Your task to perform on an android device: Open maps Image 0: 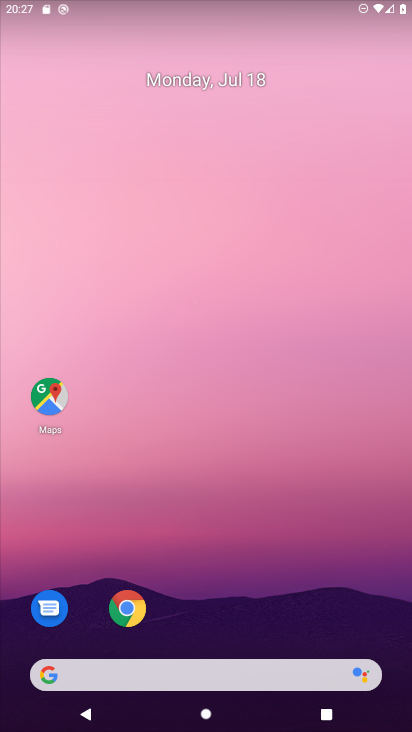
Step 0: click (49, 396)
Your task to perform on an android device: Open maps Image 1: 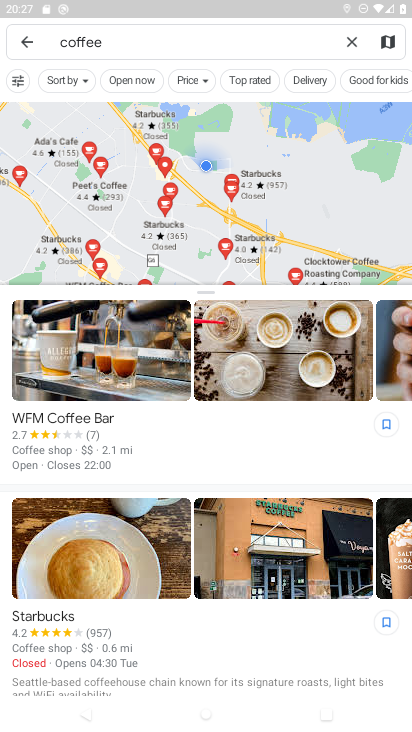
Step 1: task complete